Your task to perform on an android device: check android version Image 0: 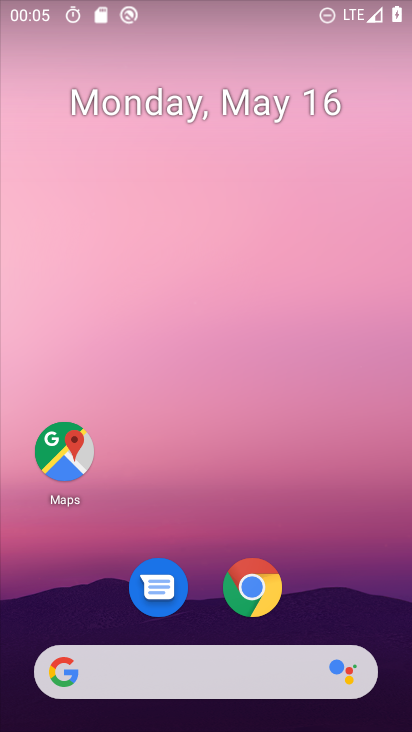
Step 0: drag from (212, 610) to (239, 123)
Your task to perform on an android device: check android version Image 1: 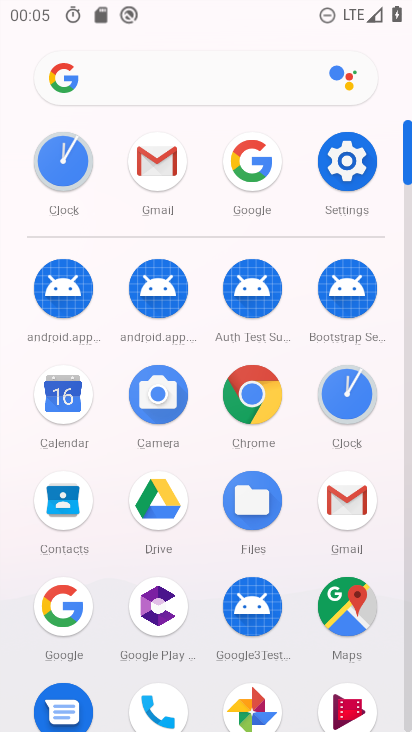
Step 1: click (325, 155)
Your task to perform on an android device: check android version Image 2: 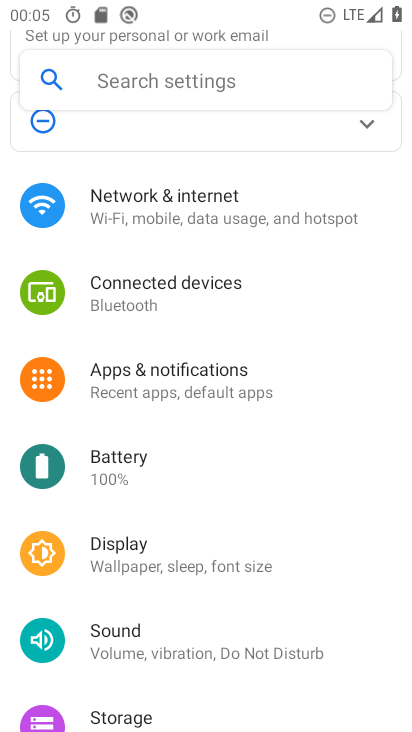
Step 2: drag from (231, 614) to (236, 345)
Your task to perform on an android device: check android version Image 3: 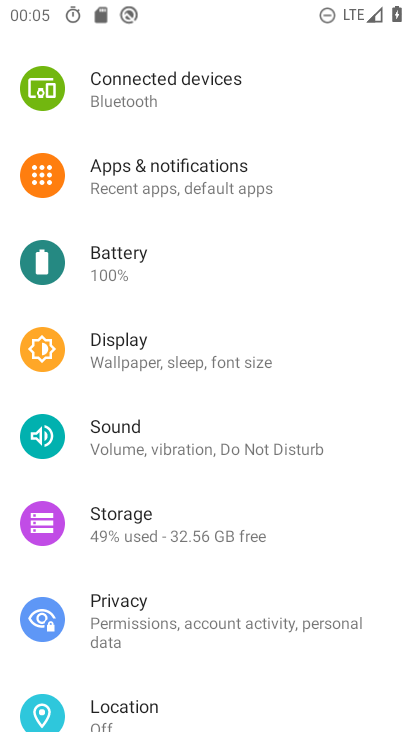
Step 3: drag from (236, 668) to (236, 411)
Your task to perform on an android device: check android version Image 4: 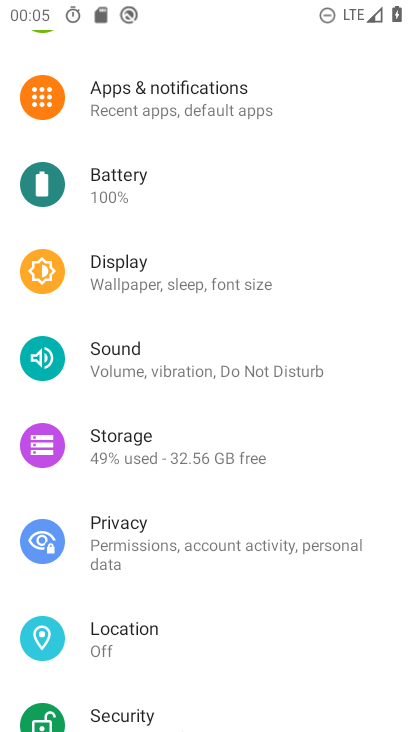
Step 4: drag from (235, 588) to (261, 327)
Your task to perform on an android device: check android version Image 5: 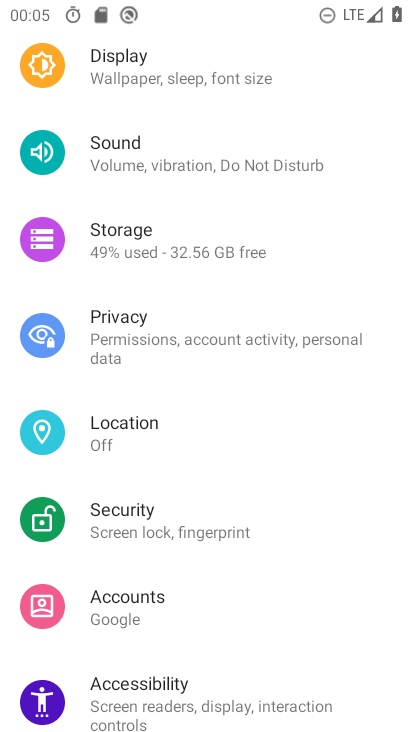
Step 5: drag from (188, 691) to (198, 460)
Your task to perform on an android device: check android version Image 6: 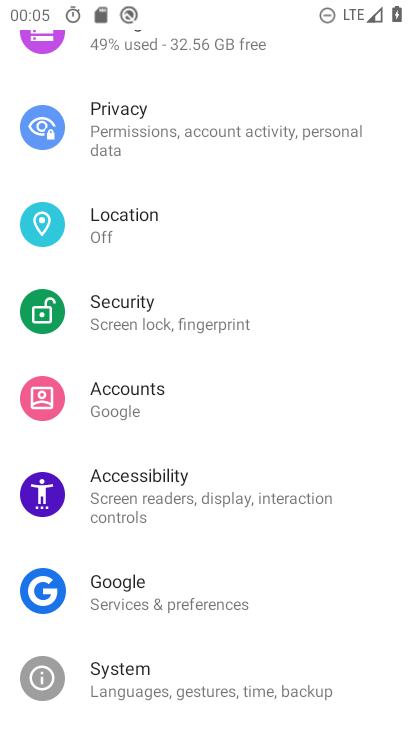
Step 6: drag from (189, 657) to (204, 405)
Your task to perform on an android device: check android version Image 7: 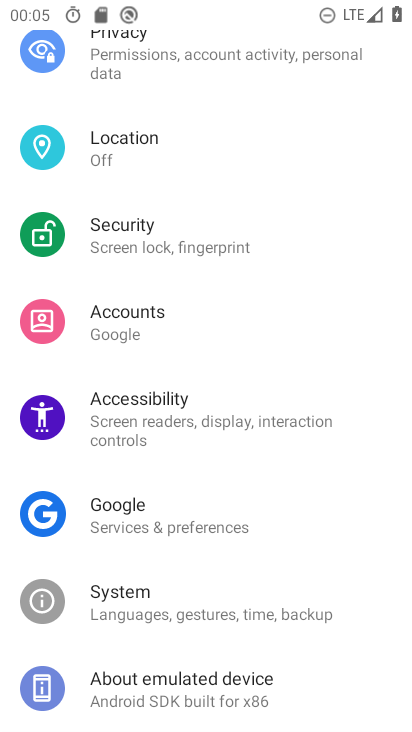
Step 7: drag from (191, 637) to (199, 423)
Your task to perform on an android device: check android version Image 8: 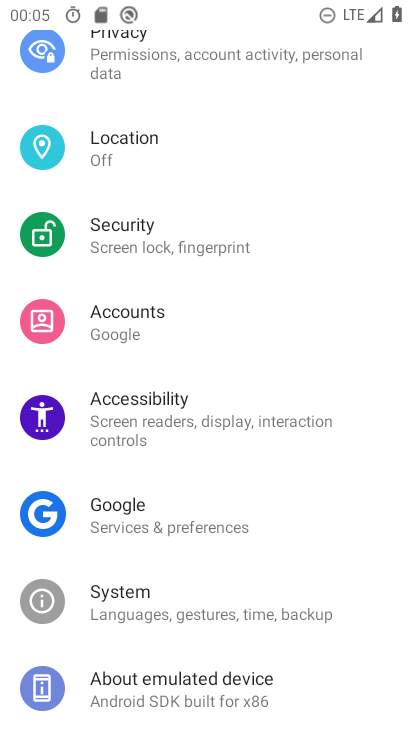
Step 8: drag from (210, 613) to (212, 447)
Your task to perform on an android device: check android version Image 9: 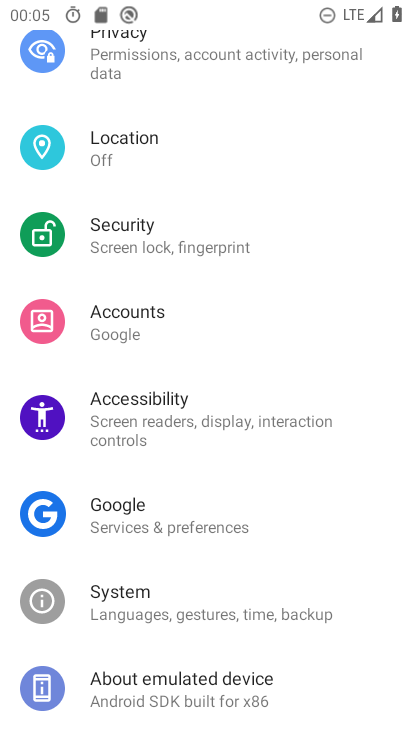
Step 9: click (180, 694)
Your task to perform on an android device: check android version Image 10: 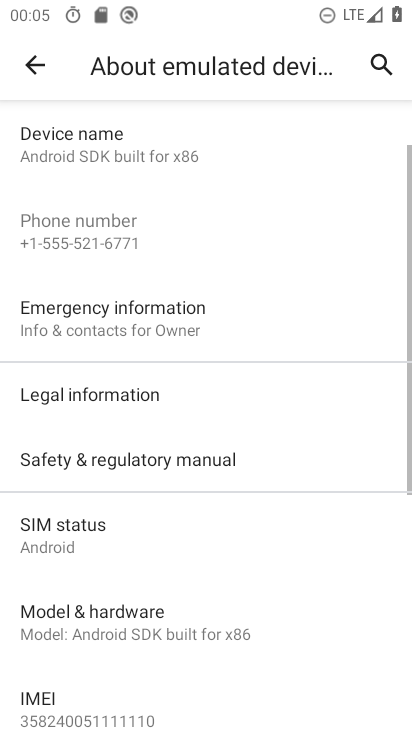
Step 10: drag from (140, 587) to (201, 318)
Your task to perform on an android device: check android version Image 11: 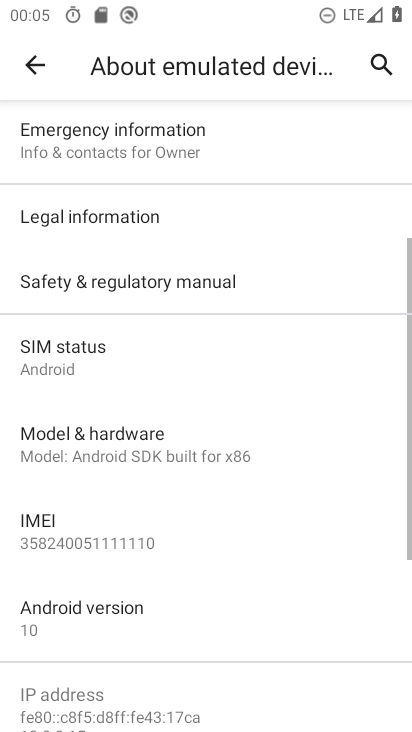
Step 11: click (104, 611)
Your task to perform on an android device: check android version Image 12: 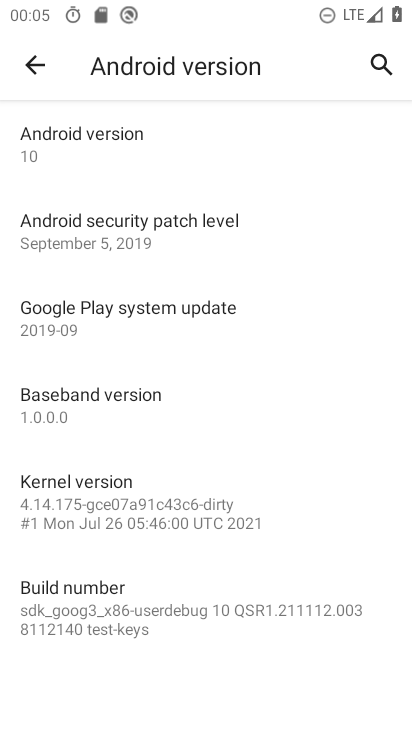
Step 12: click (116, 148)
Your task to perform on an android device: check android version Image 13: 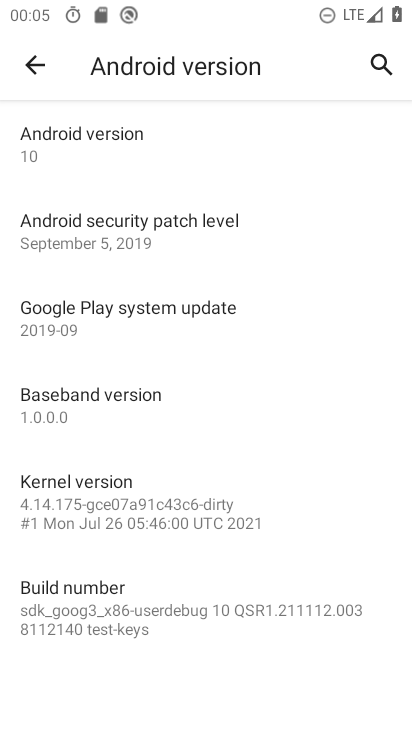
Step 13: task complete